Your task to perform on an android device: turn off airplane mode Image 0: 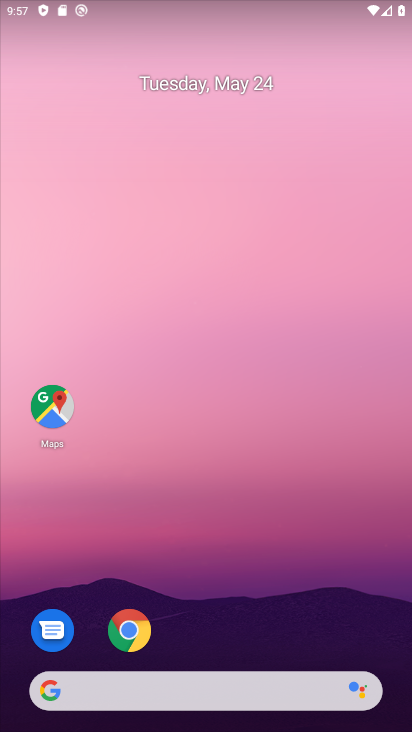
Step 0: drag from (228, 650) to (220, 68)
Your task to perform on an android device: turn off airplane mode Image 1: 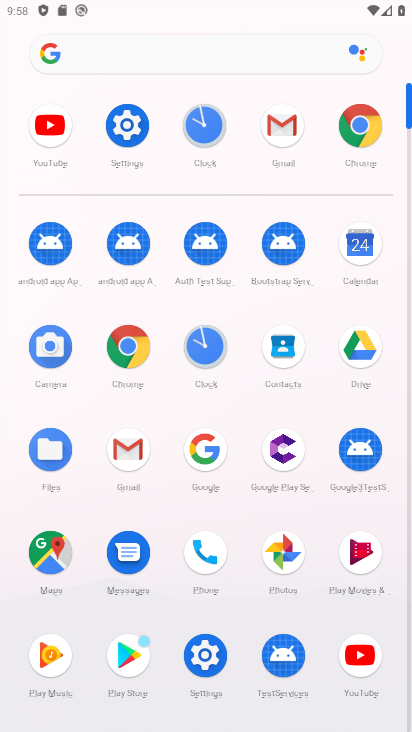
Step 1: task complete